Your task to perform on an android device: Go to internet settings Image 0: 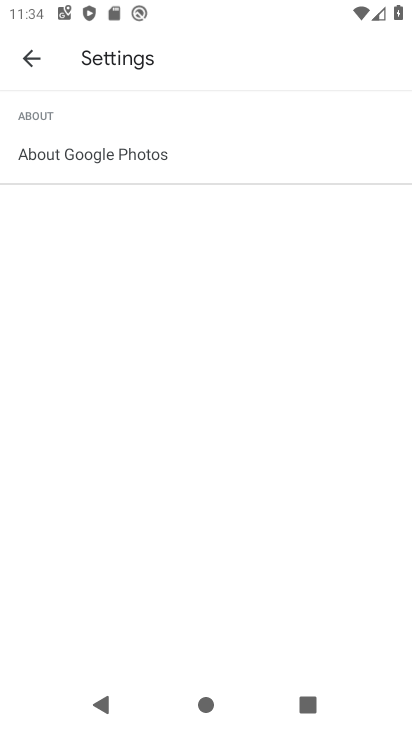
Step 0: press home button
Your task to perform on an android device: Go to internet settings Image 1: 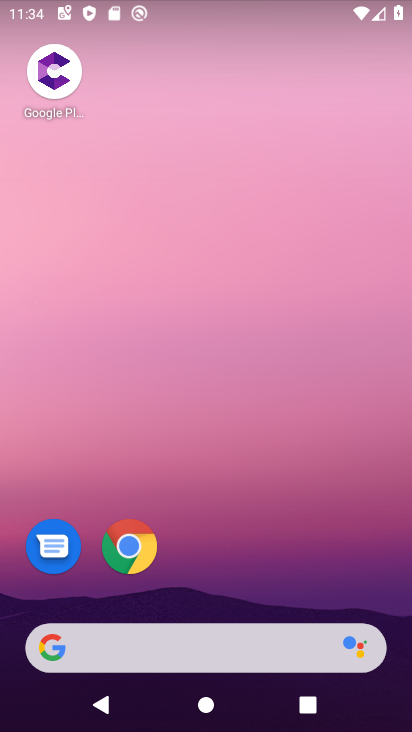
Step 1: drag from (241, 514) to (127, 80)
Your task to perform on an android device: Go to internet settings Image 2: 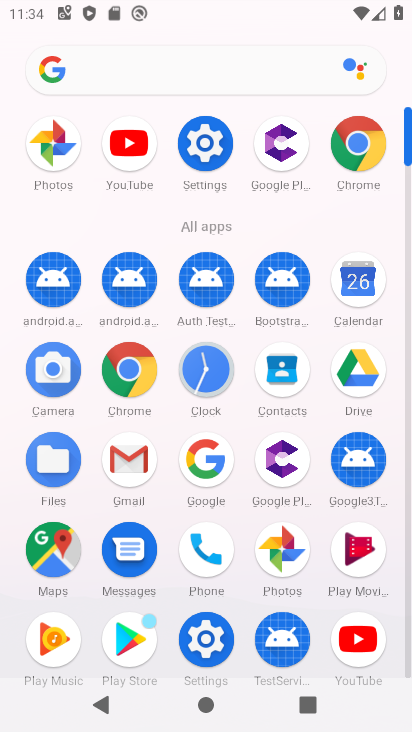
Step 2: click (209, 142)
Your task to perform on an android device: Go to internet settings Image 3: 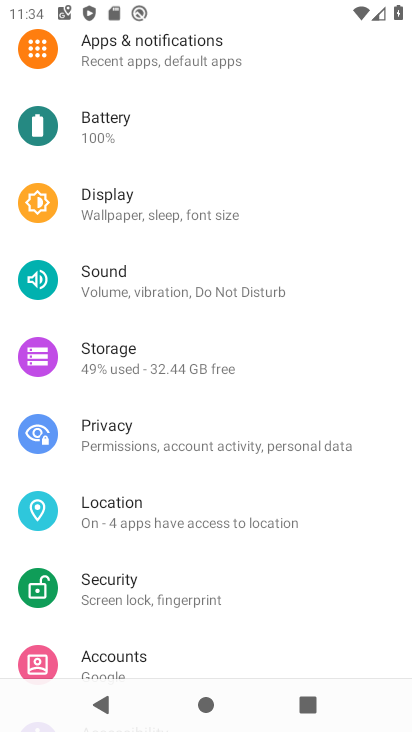
Step 3: drag from (190, 142) to (234, 441)
Your task to perform on an android device: Go to internet settings Image 4: 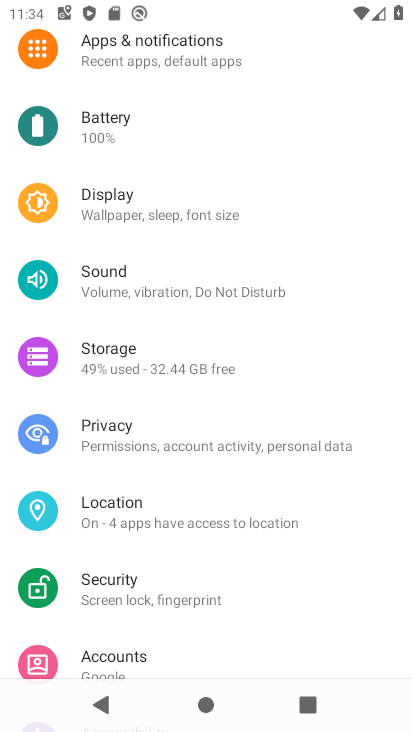
Step 4: drag from (215, 175) to (119, 727)
Your task to perform on an android device: Go to internet settings Image 5: 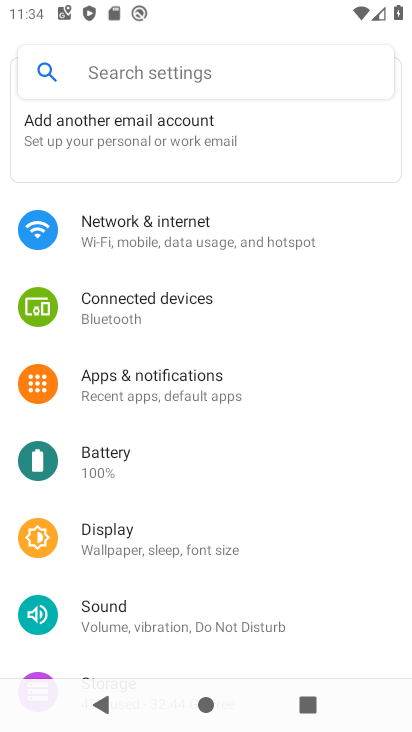
Step 5: click (164, 218)
Your task to perform on an android device: Go to internet settings Image 6: 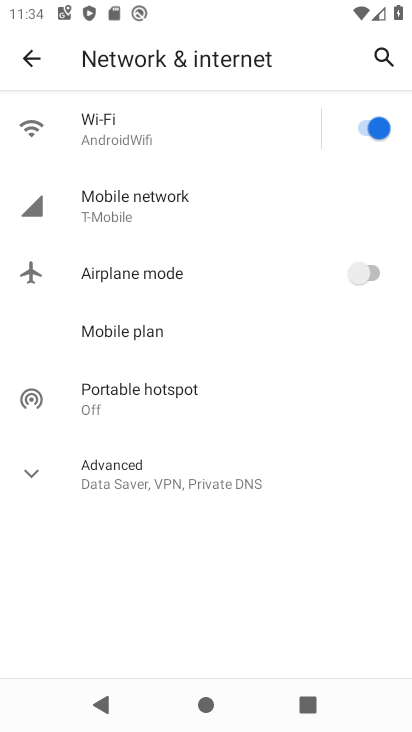
Step 6: task complete